Your task to perform on an android device: Open wifi settings Image 0: 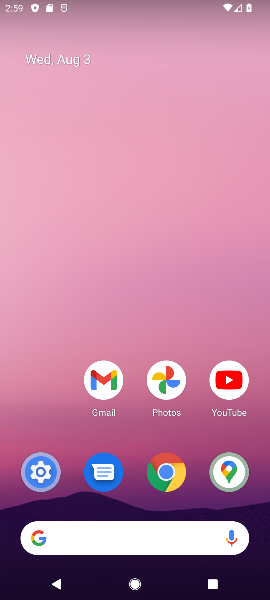
Step 0: drag from (205, 508) to (105, 17)
Your task to perform on an android device: Open wifi settings Image 1: 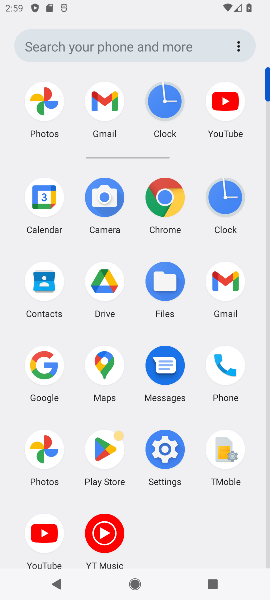
Step 1: click (161, 469)
Your task to perform on an android device: Open wifi settings Image 2: 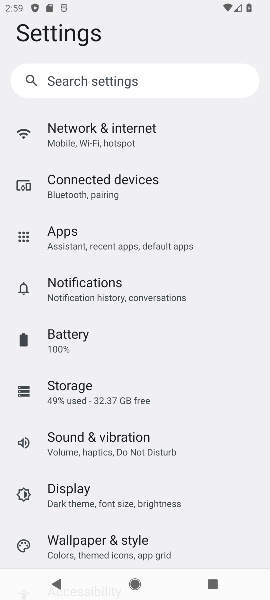
Step 2: click (65, 138)
Your task to perform on an android device: Open wifi settings Image 3: 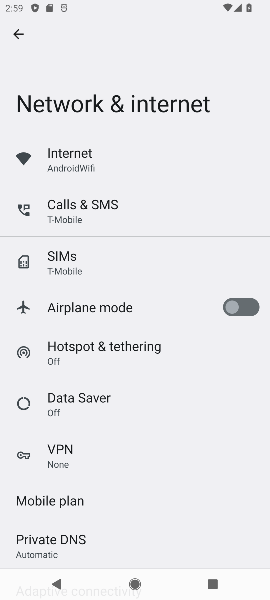
Step 3: task complete